Your task to perform on an android device: Go to Google Image 0: 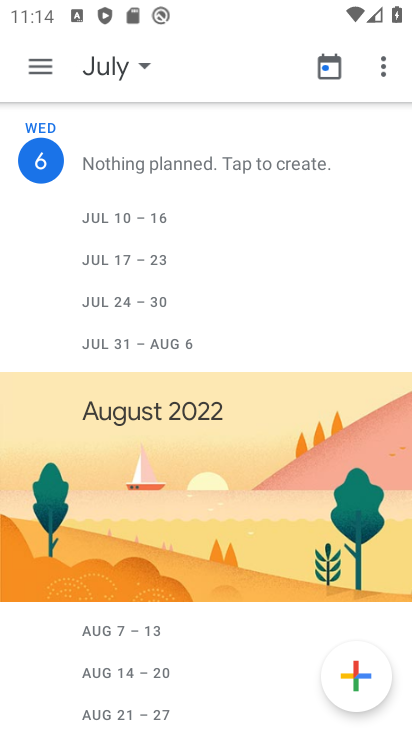
Step 0: press home button
Your task to perform on an android device: Go to Google Image 1: 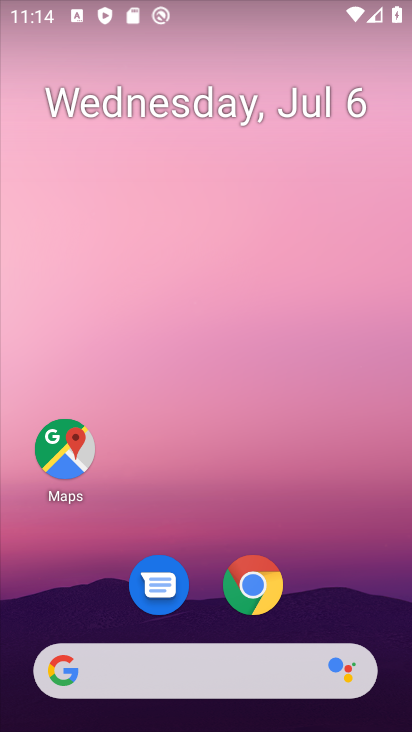
Step 1: drag from (204, 534) to (233, 70)
Your task to perform on an android device: Go to Google Image 2: 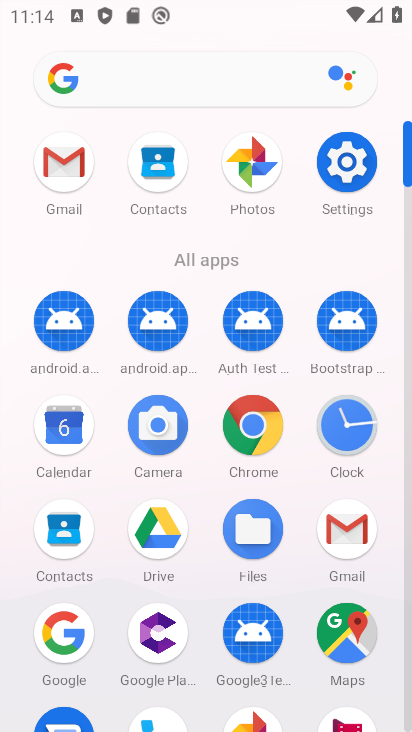
Step 2: drag from (207, 420) to (199, 165)
Your task to perform on an android device: Go to Google Image 3: 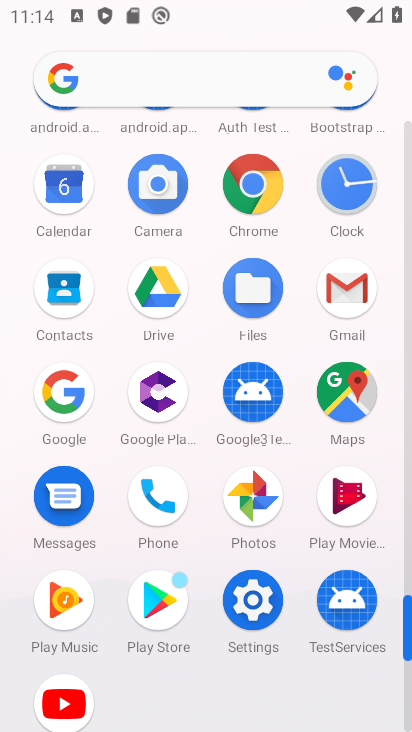
Step 3: click (58, 397)
Your task to perform on an android device: Go to Google Image 4: 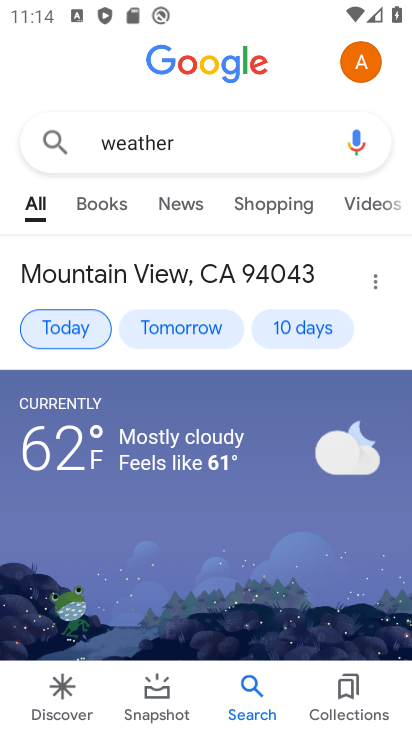
Step 4: task complete